Your task to perform on an android device: open app "Skype" (install if not already installed) Image 0: 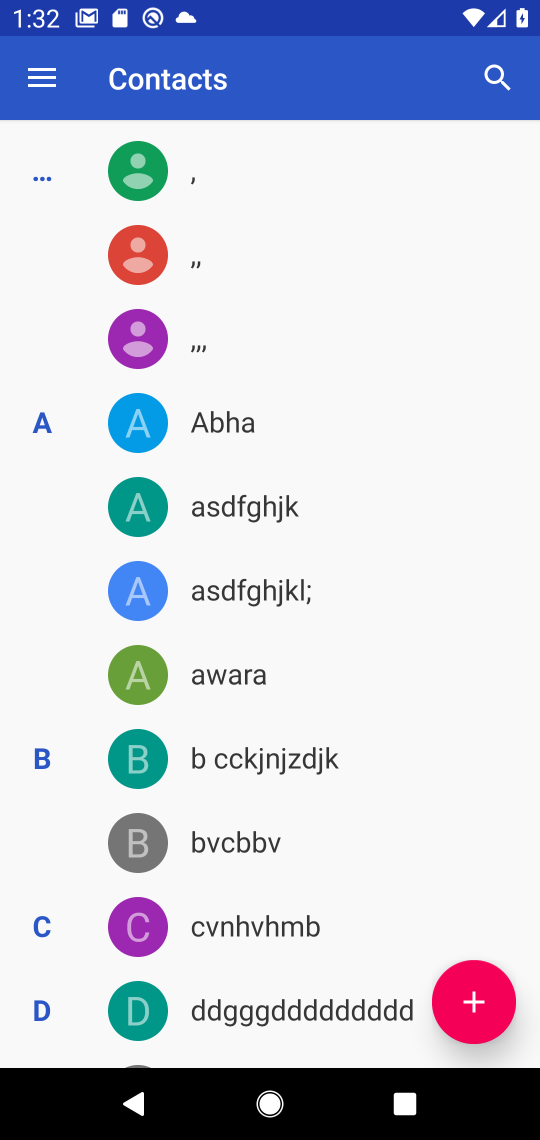
Step 0: press home button
Your task to perform on an android device: open app "Skype" (install if not already installed) Image 1: 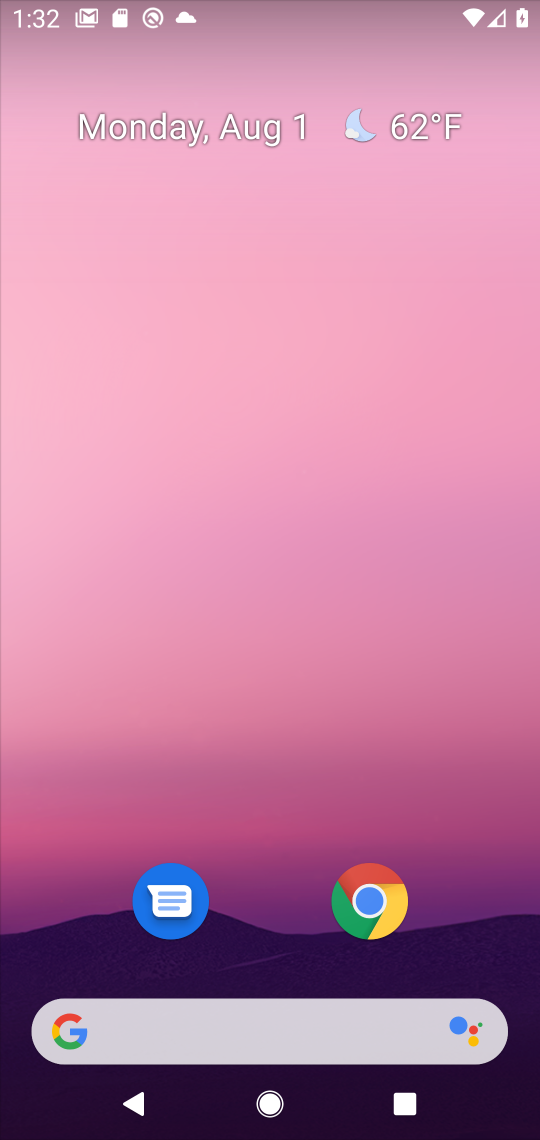
Step 1: drag from (268, 1008) to (142, 10)
Your task to perform on an android device: open app "Skype" (install if not already installed) Image 2: 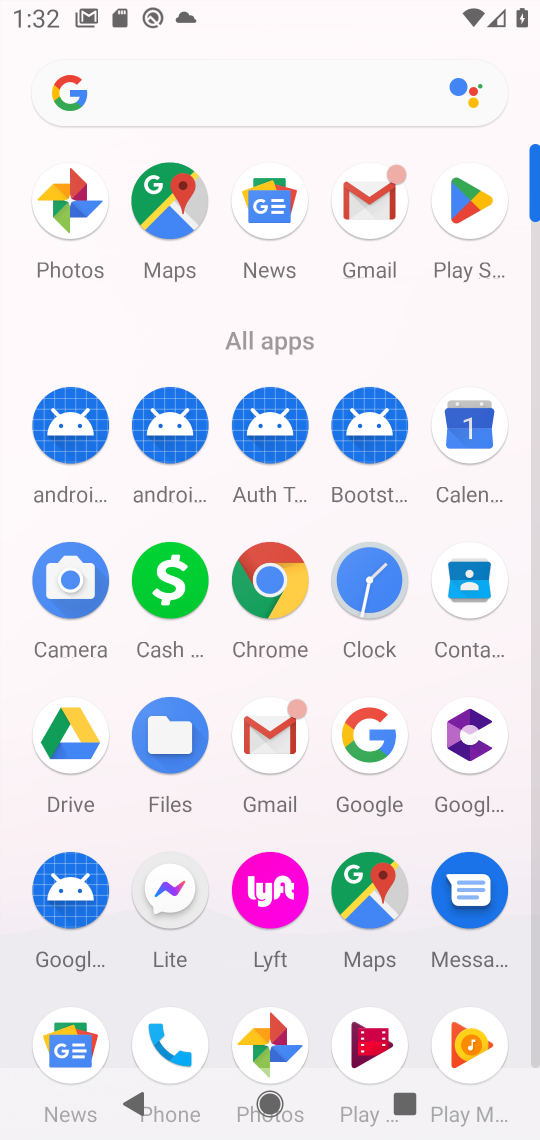
Step 2: click (490, 200)
Your task to perform on an android device: open app "Skype" (install if not already installed) Image 3: 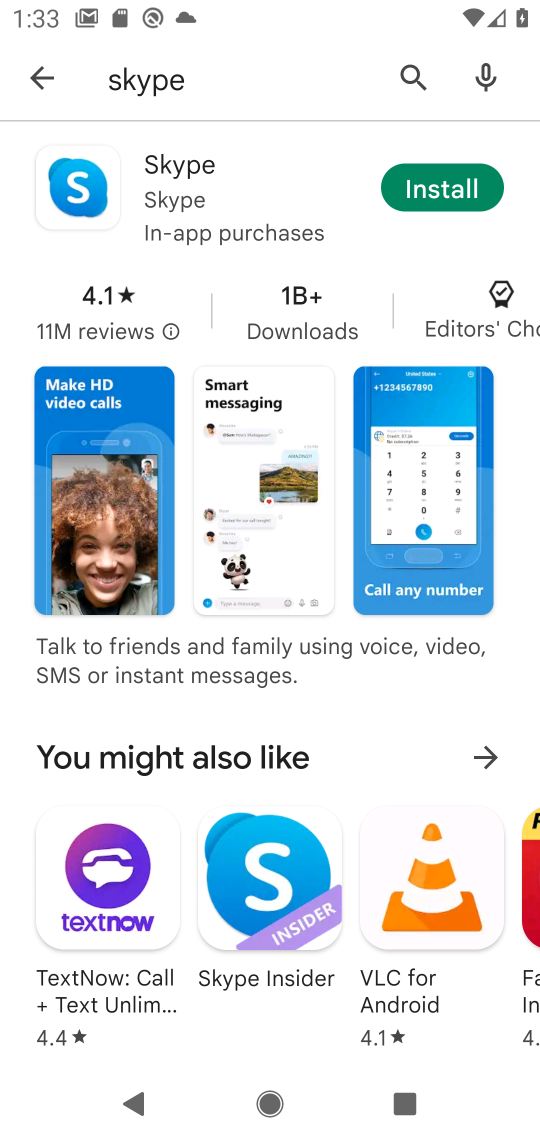
Step 3: click (407, 189)
Your task to perform on an android device: open app "Skype" (install if not already installed) Image 4: 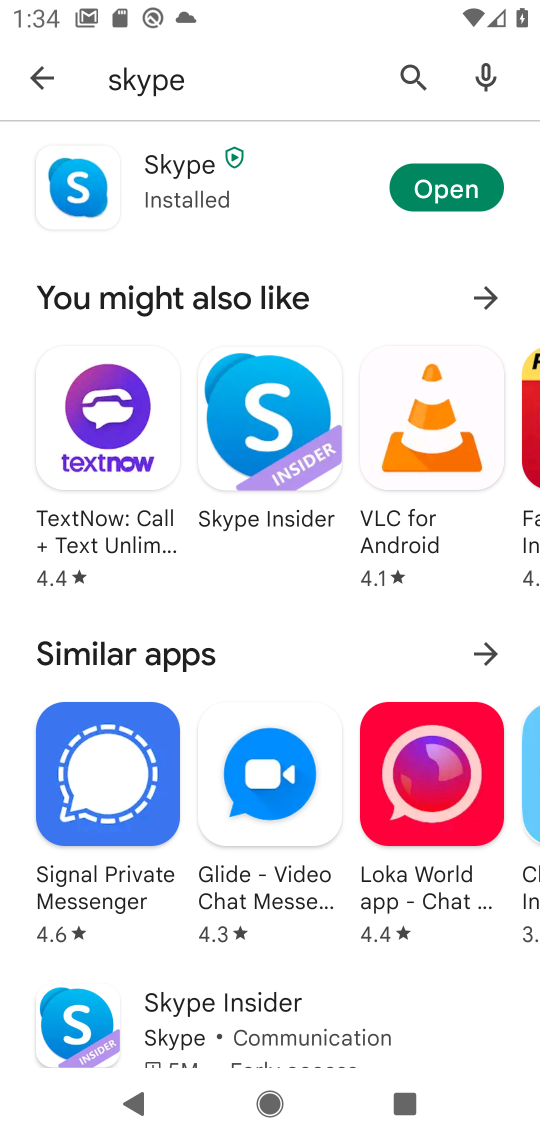
Step 4: click (471, 187)
Your task to perform on an android device: open app "Skype" (install if not already installed) Image 5: 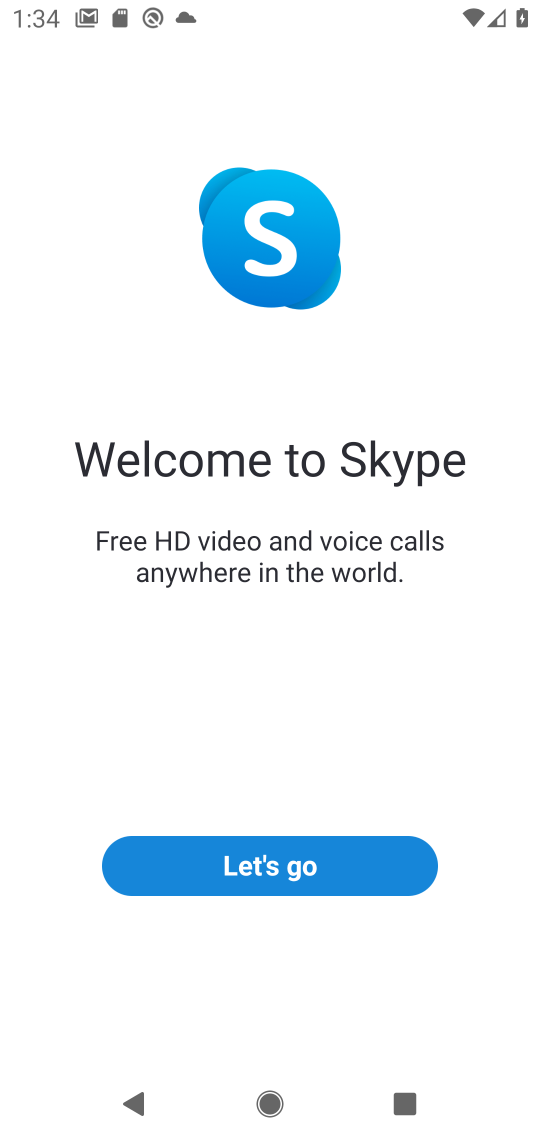
Step 5: task complete